Your task to perform on an android device: open chrome privacy settings Image 0: 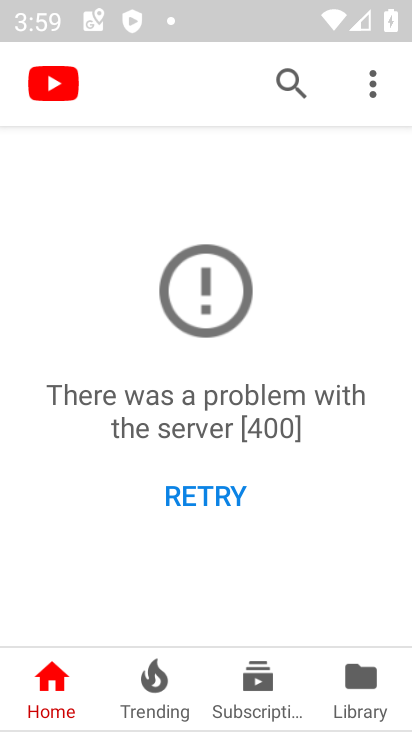
Step 0: press home button
Your task to perform on an android device: open chrome privacy settings Image 1: 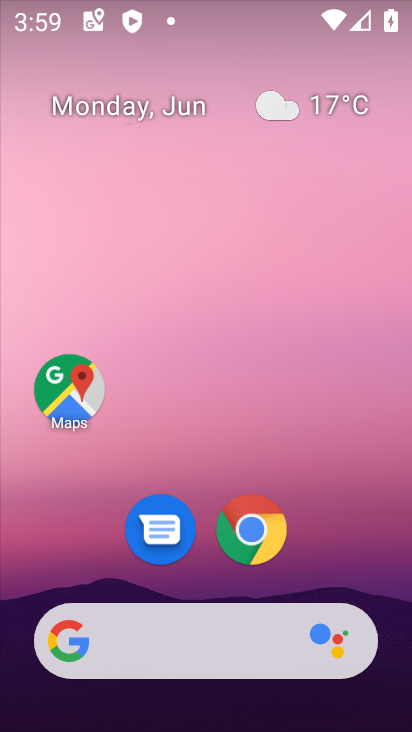
Step 1: click (251, 530)
Your task to perform on an android device: open chrome privacy settings Image 2: 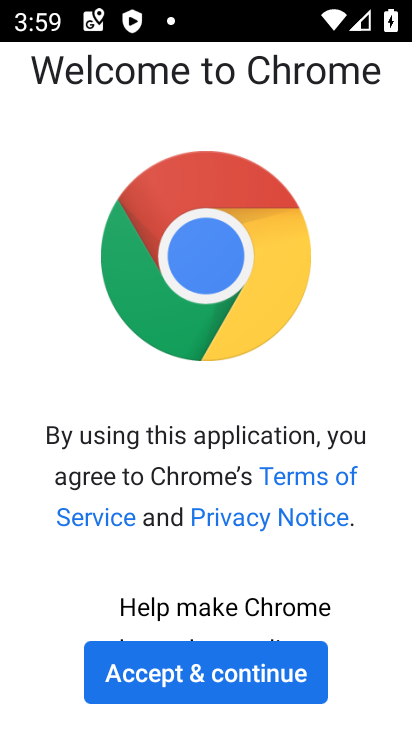
Step 2: click (203, 659)
Your task to perform on an android device: open chrome privacy settings Image 3: 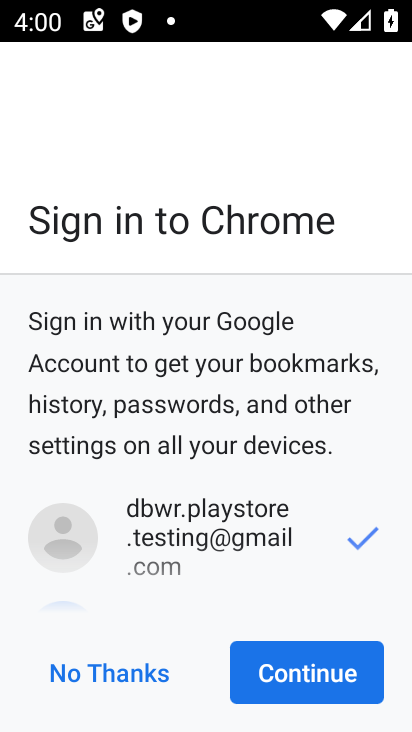
Step 3: click (278, 669)
Your task to perform on an android device: open chrome privacy settings Image 4: 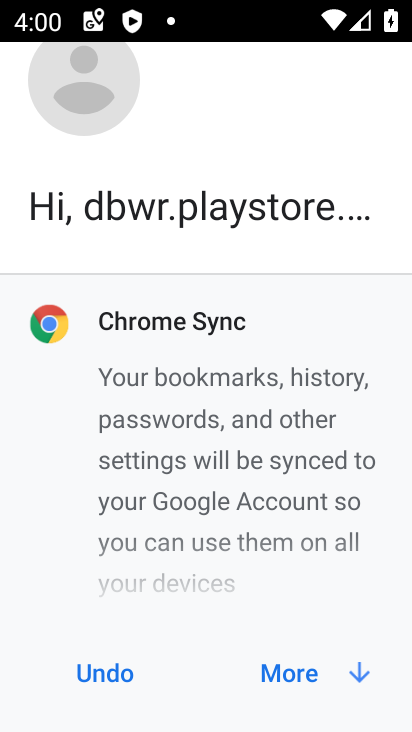
Step 4: click (278, 669)
Your task to perform on an android device: open chrome privacy settings Image 5: 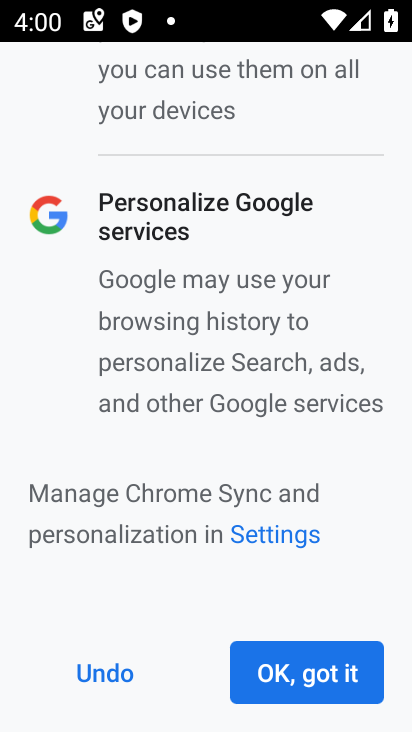
Step 5: click (278, 669)
Your task to perform on an android device: open chrome privacy settings Image 6: 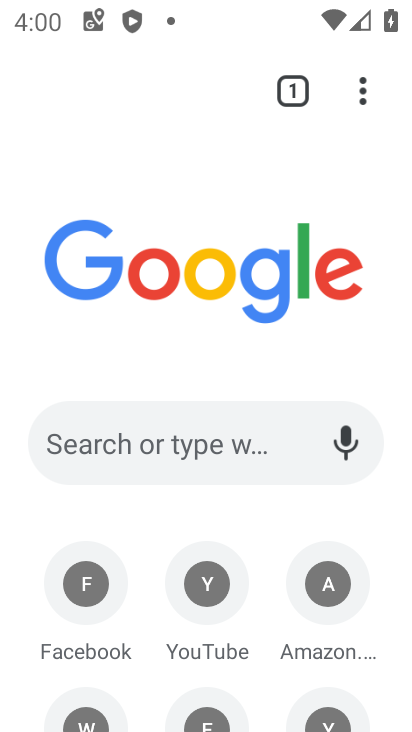
Step 6: click (363, 95)
Your task to perform on an android device: open chrome privacy settings Image 7: 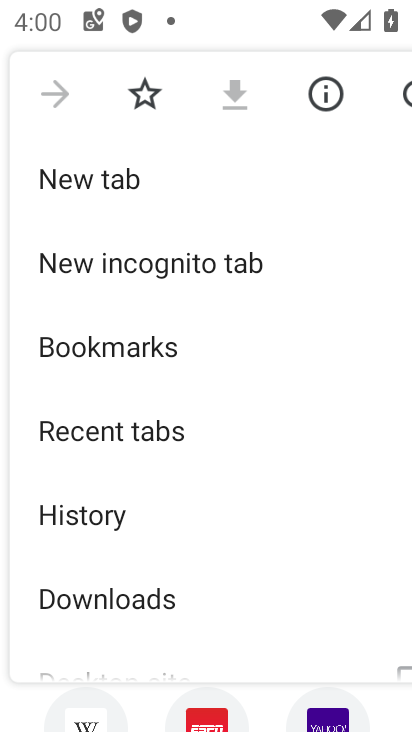
Step 7: drag from (135, 573) to (233, 216)
Your task to perform on an android device: open chrome privacy settings Image 8: 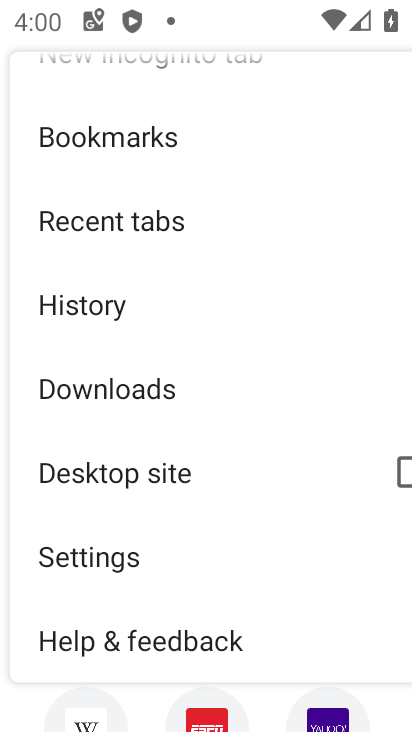
Step 8: click (113, 558)
Your task to perform on an android device: open chrome privacy settings Image 9: 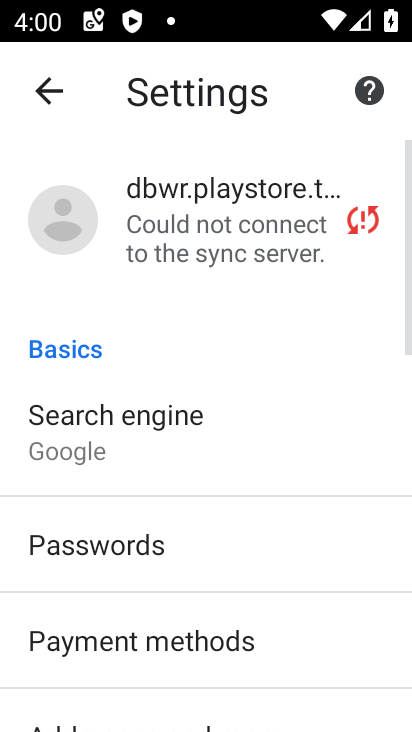
Step 9: drag from (148, 577) to (233, 304)
Your task to perform on an android device: open chrome privacy settings Image 10: 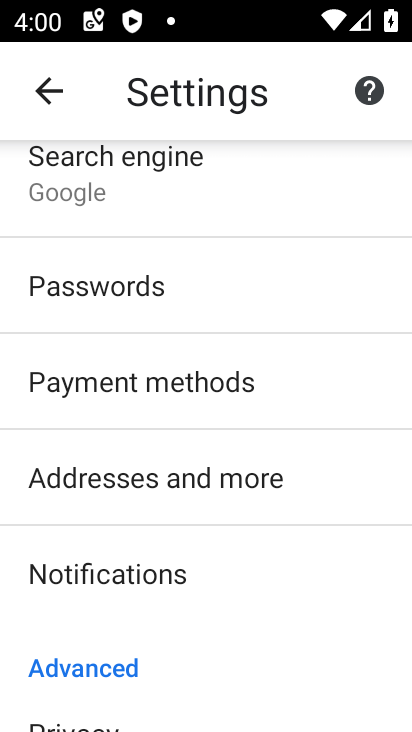
Step 10: drag from (167, 604) to (277, 366)
Your task to perform on an android device: open chrome privacy settings Image 11: 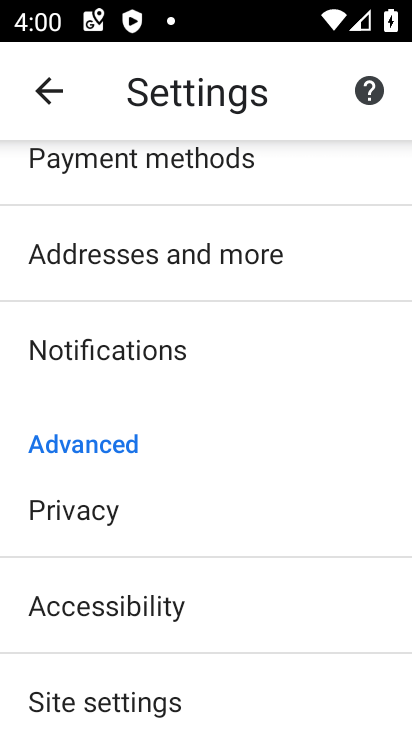
Step 11: click (99, 517)
Your task to perform on an android device: open chrome privacy settings Image 12: 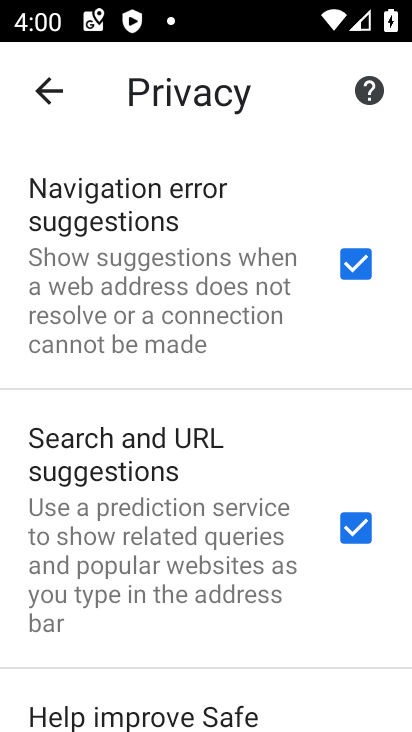
Step 12: task complete